Your task to perform on an android device: Open location settings Image 0: 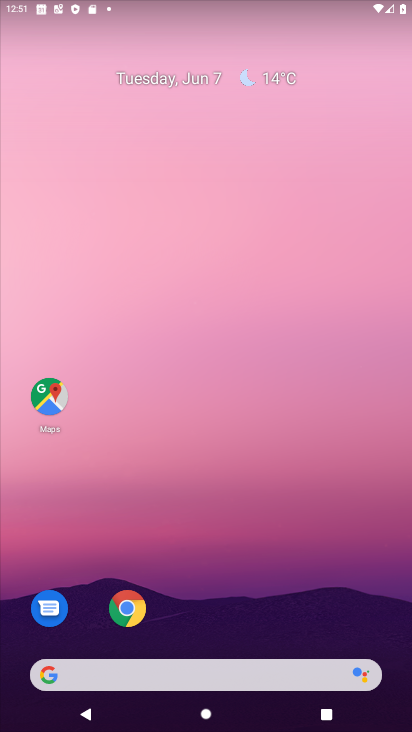
Step 0: drag from (331, 524) to (321, 33)
Your task to perform on an android device: Open location settings Image 1: 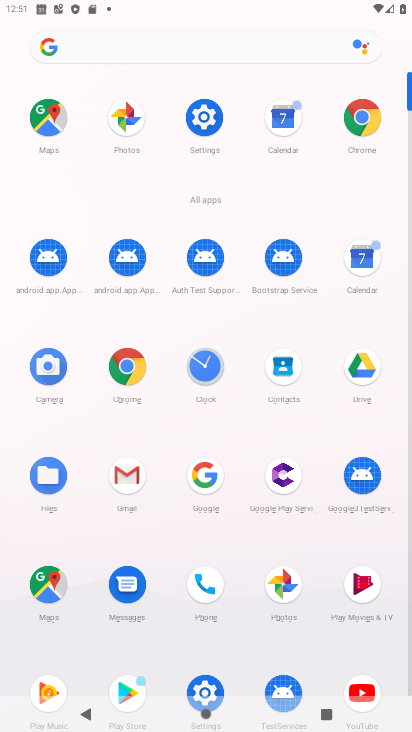
Step 1: click (201, 124)
Your task to perform on an android device: Open location settings Image 2: 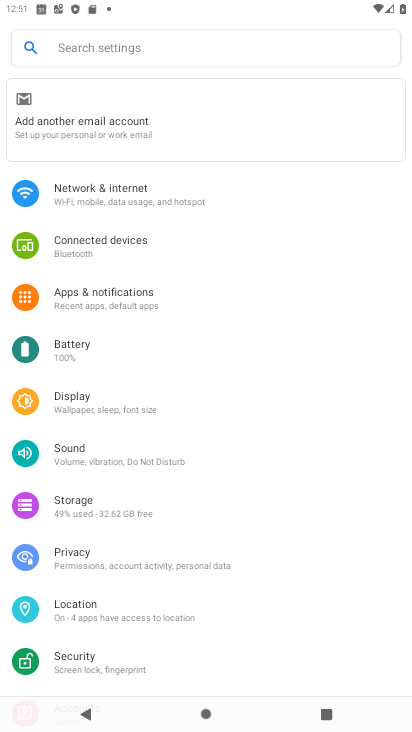
Step 2: click (95, 614)
Your task to perform on an android device: Open location settings Image 3: 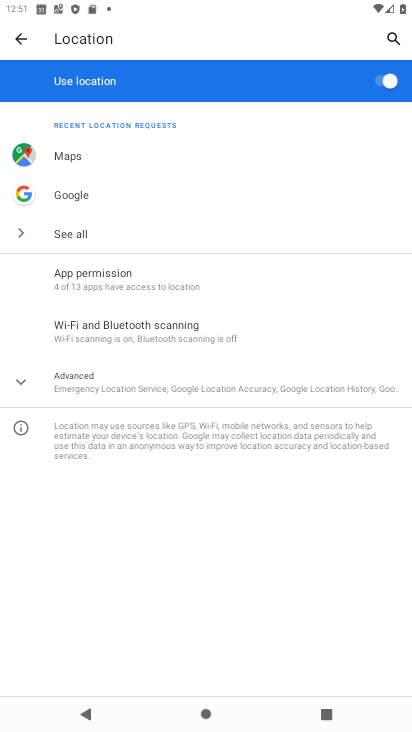
Step 3: task complete